Your task to perform on an android device: Go to display settings Image 0: 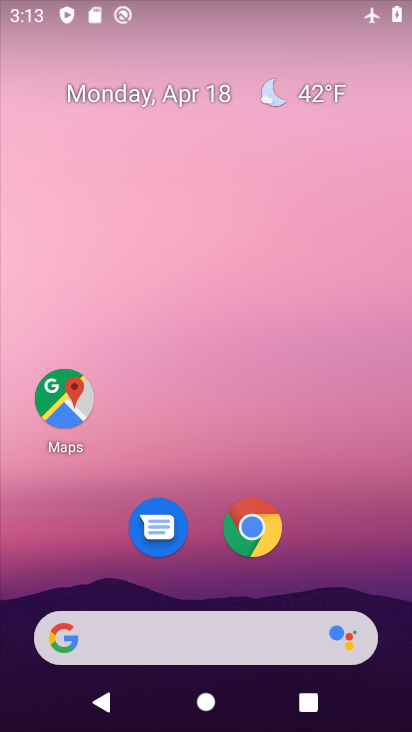
Step 0: drag from (245, 687) to (271, 37)
Your task to perform on an android device: Go to display settings Image 1: 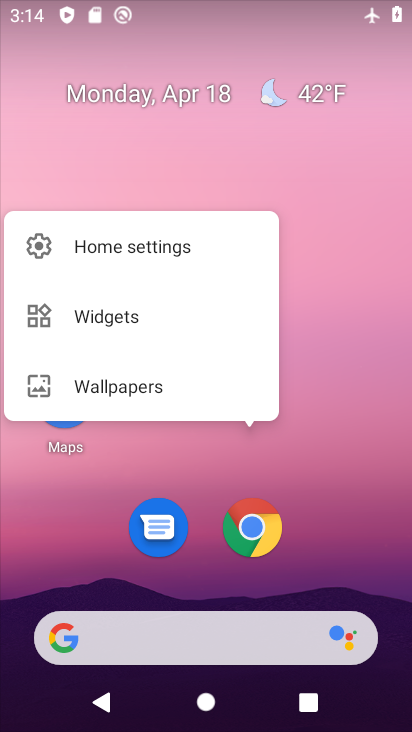
Step 1: drag from (234, 678) to (255, 112)
Your task to perform on an android device: Go to display settings Image 2: 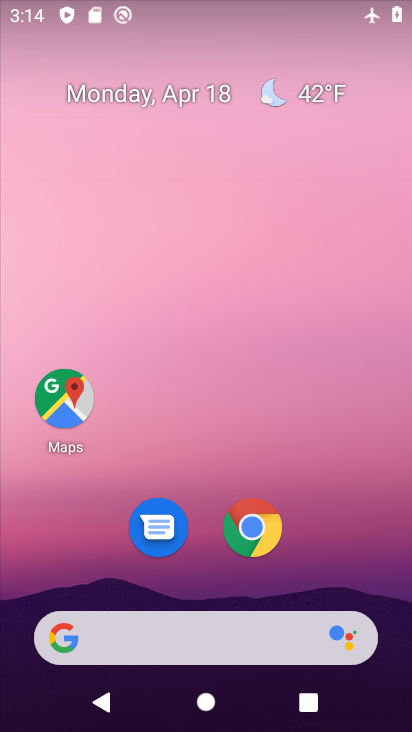
Step 2: drag from (315, 348) to (311, 42)
Your task to perform on an android device: Go to display settings Image 3: 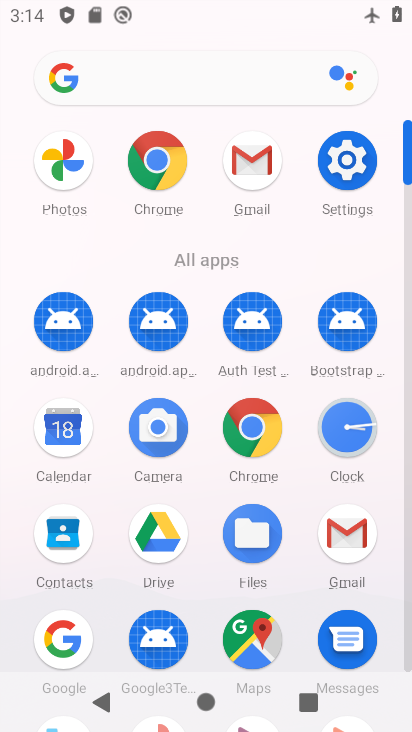
Step 3: click (356, 168)
Your task to perform on an android device: Go to display settings Image 4: 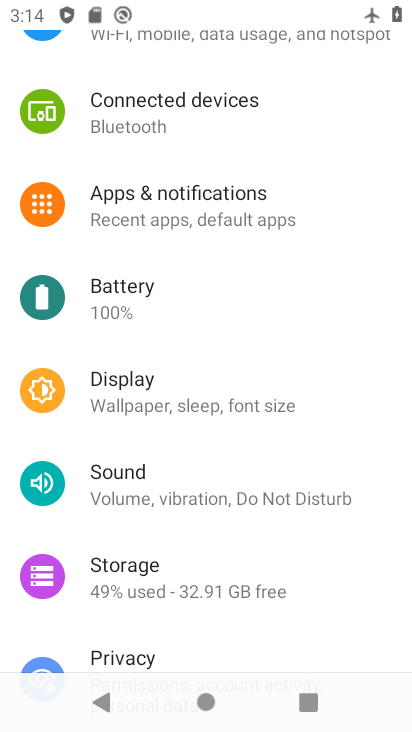
Step 4: drag from (205, 624) to (225, 145)
Your task to perform on an android device: Go to display settings Image 5: 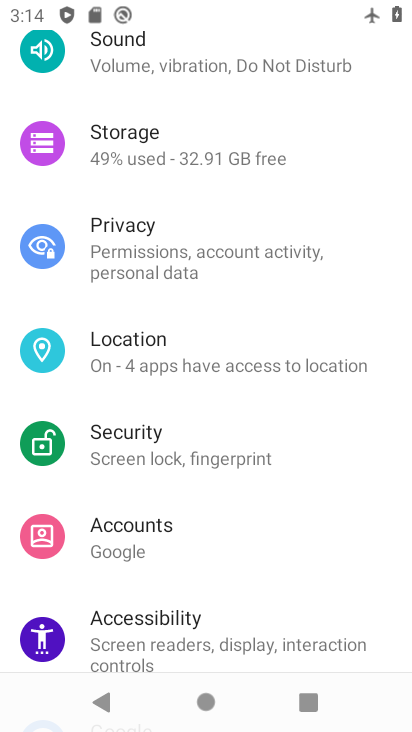
Step 5: drag from (226, 146) to (146, 627)
Your task to perform on an android device: Go to display settings Image 6: 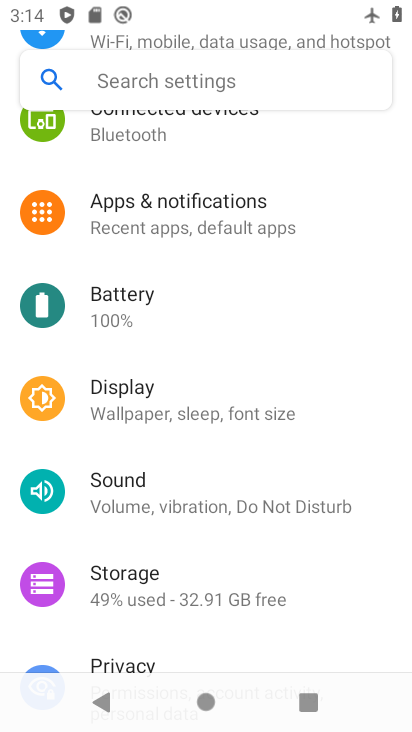
Step 6: click (133, 397)
Your task to perform on an android device: Go to display settings Image 7: 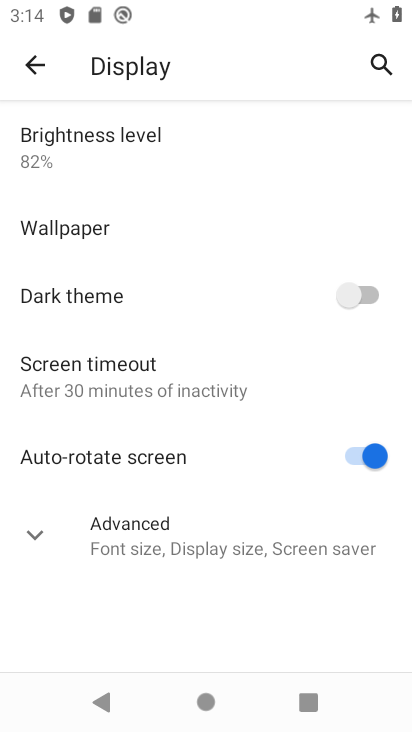
Step 7: click (100, 530)
Your task to perform on an android device: Go to display settings Image 8: 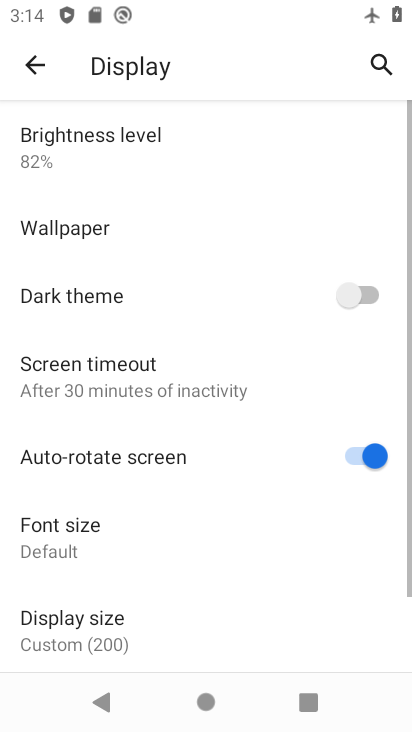
Step 8: task complete